Your task to perform on an android device: change alarm snooze length Image 0: 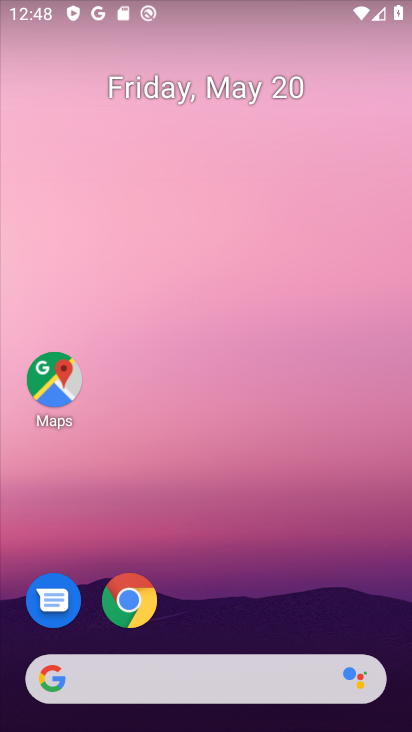
Step 0: drag from (151, 662) to (110, 32)
Your task to perform on an android device: change alarm snooze length Image 1: 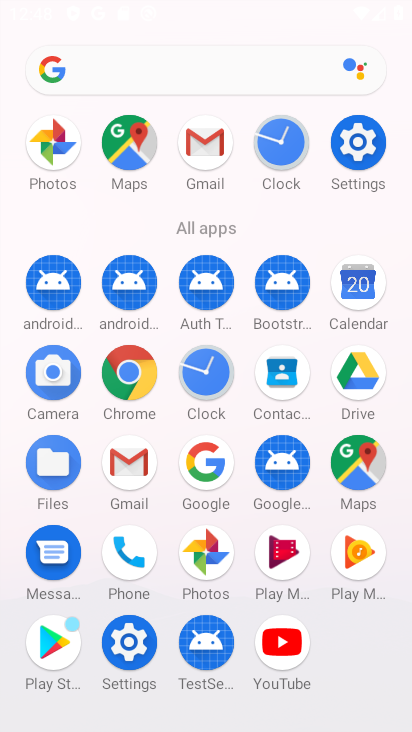
Step 1: click (206, 390)
Your task to perform on an android device: change alarm snooze length Image 2: 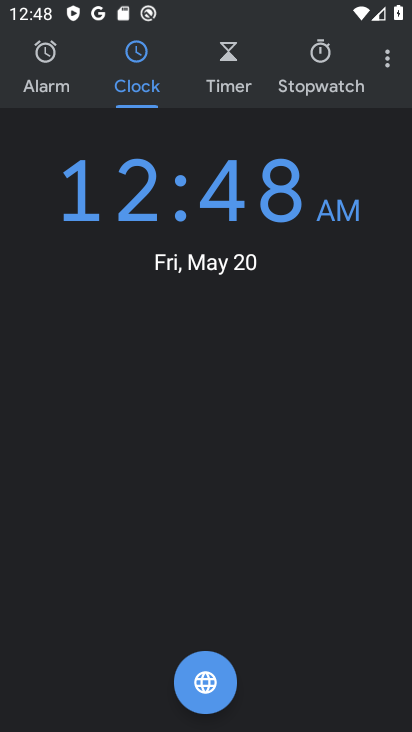
Step 2: click (398, 56)
Your task to perform on an android device: change alarm snooze length Image 3: 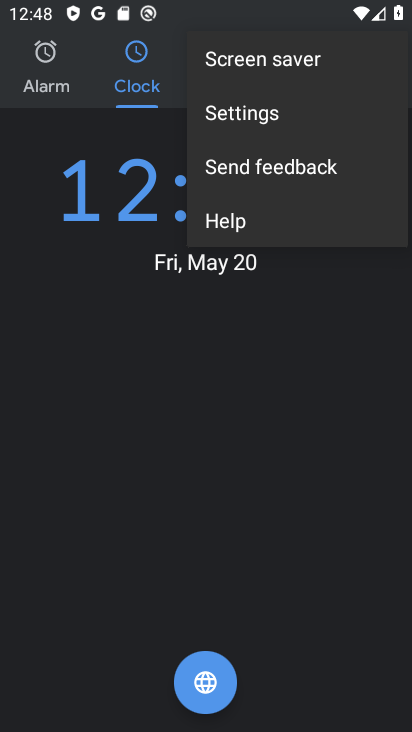
Step 3: click (257, 117)
Your task to perform on an android device: change alarm snooze length Image 4: 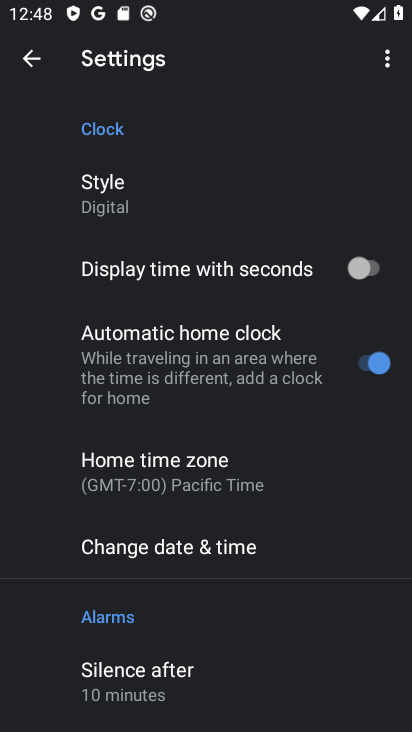
Step 4: drag from (209, 652) to (186, 193)
Your task to perform on an android device: change alarm snooze length Image 5: 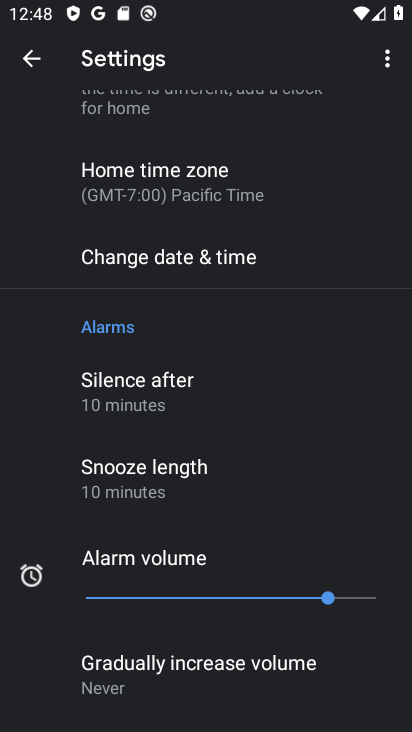
Step 5: click (205, 477)
Your task to perform on an android device: change alarm snooze length Image 6: 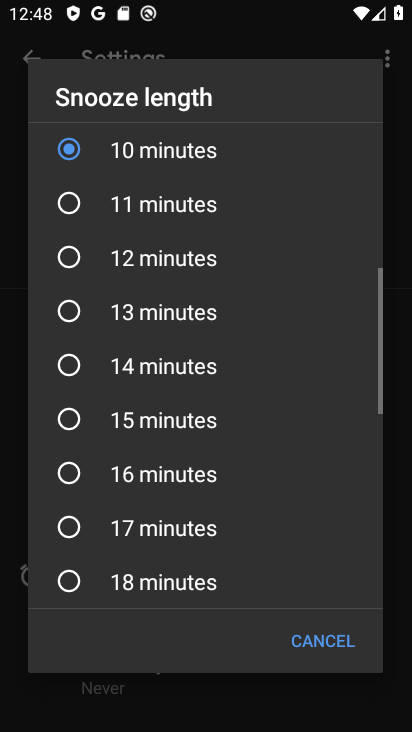
Step 6: click (188, 590)
Your task to perform on an android device: change alarm snooze length Image 7: 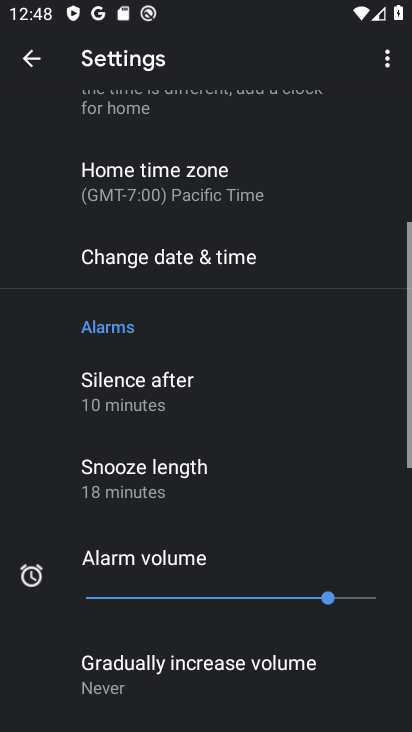
Step 7: task complete